Your task to perform on an android device: open a new tab in the chrome app Image 0: 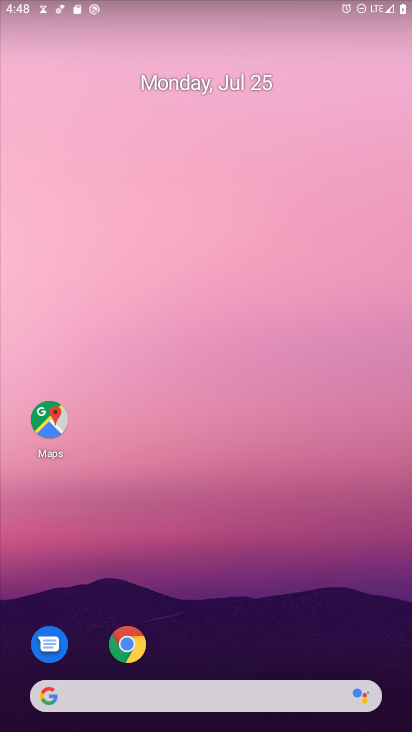
Step 0: press home button
Your task to perform on an android device: open a new tab in the chrome app Image 1: 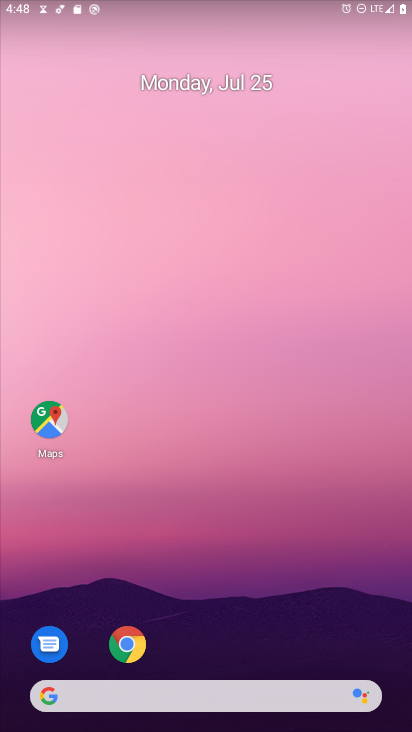
Step 1: click (137, 650)
Your task to perform on an android device: open a new tab in the chrome app Image 2: 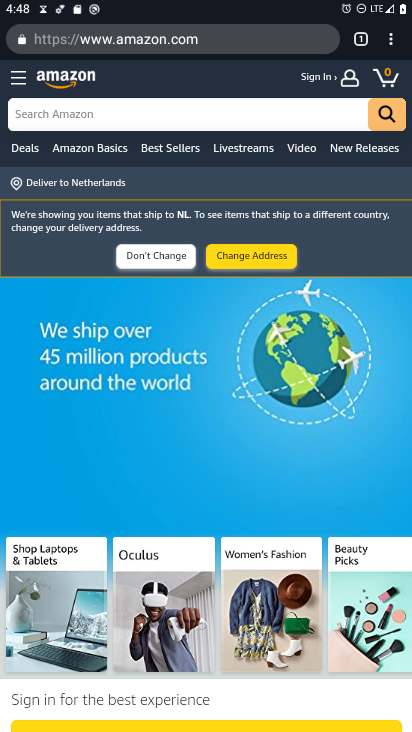
Step 2: click (361, 41)
Your task to perform on an android device: open a new tab in the chrome app Image 3: 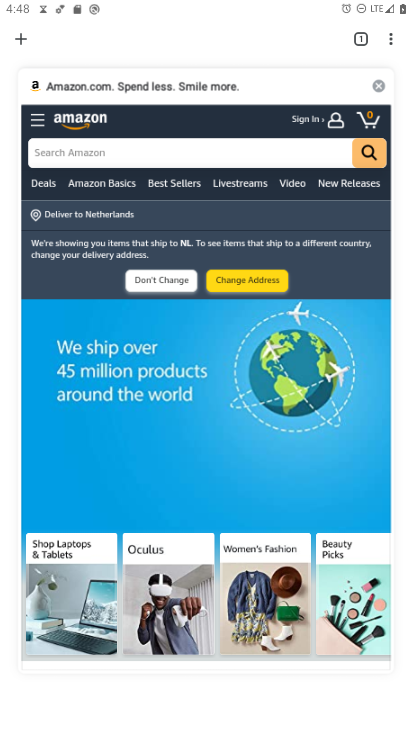
Step 3: click (16, 35)
Your task to perform on an android device: open a new tab in the chrome app Image 4: 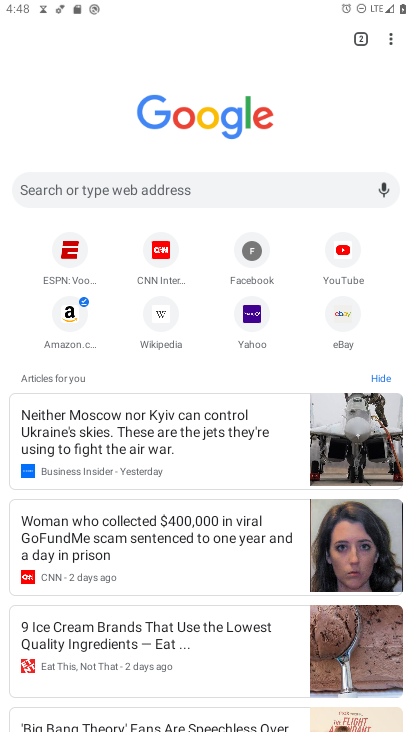
Step 4: task complete